Your task to perform on an android device: Open the calendar app, open the side menu, and click the "Day" option Image 0: 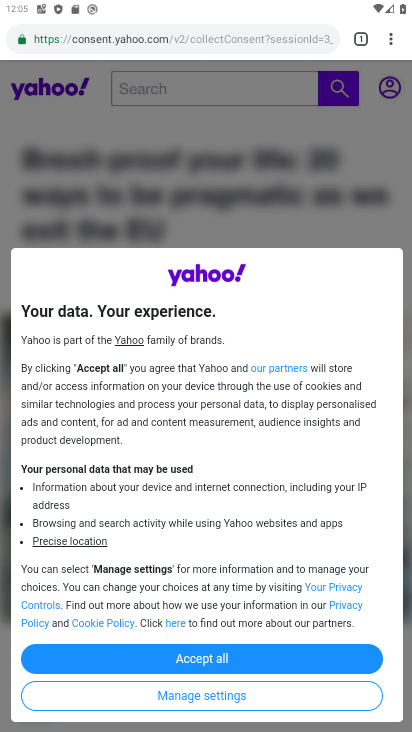
Step 0: press home button
Your task to perform on an android device: Open the calendar app, open the side menu, and click the "Day" option Image 1: 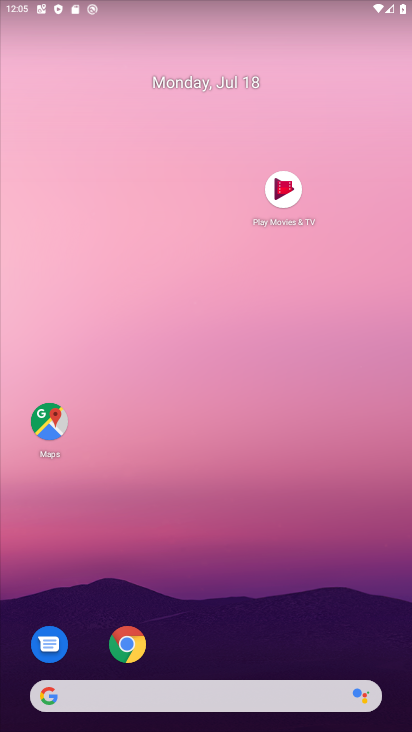
Step 1: drag from (291, 620) to (285, 77)
Your task to perform on an android device: Open the calendar app, open the side menu, and click the "Day" option Image 2: 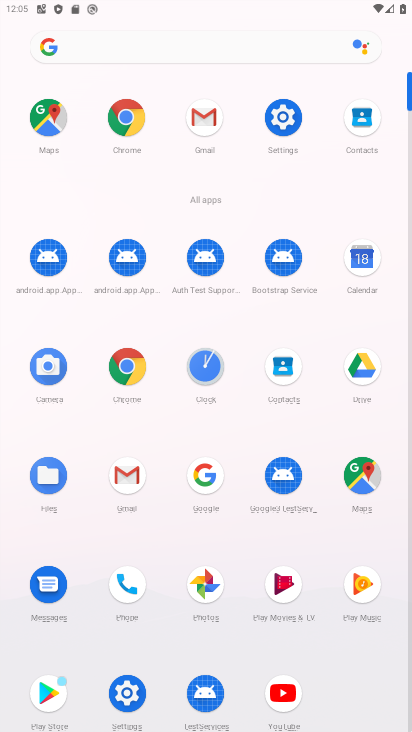
Step 2: click (355, 263)
Your task to perform on an android device: Open the calendar app, open the side menu, and click the "Day" option Image 3: 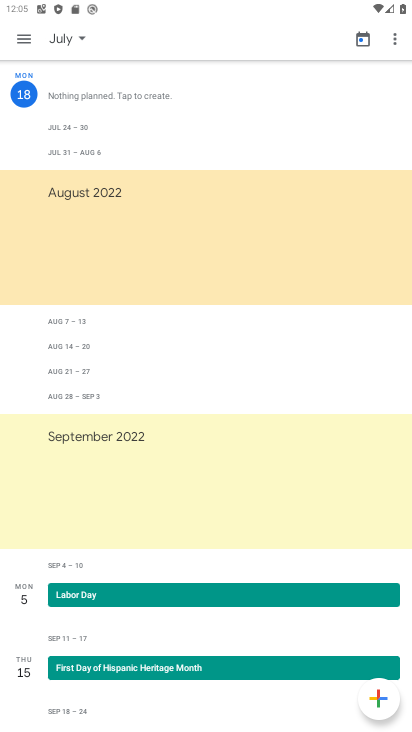
Step 3: click (29, 36)
Your task to perform on an android device: Open the calendar app, open the side menu, and click the "Day" option Image 4: 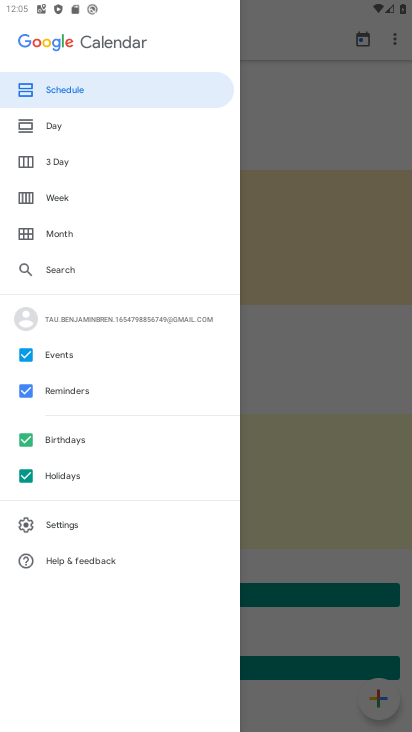
Step 4: click (51, 127)
Your task to perform on an android device: Open the calendar app, open the side menu, and click the "Day" option Image 5: 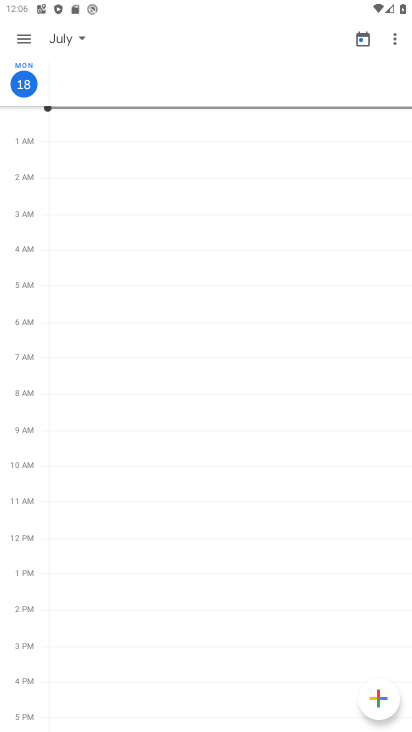
Step 5: task complete